Your task to perform on an android device: Go to Reddit.com Image 0: 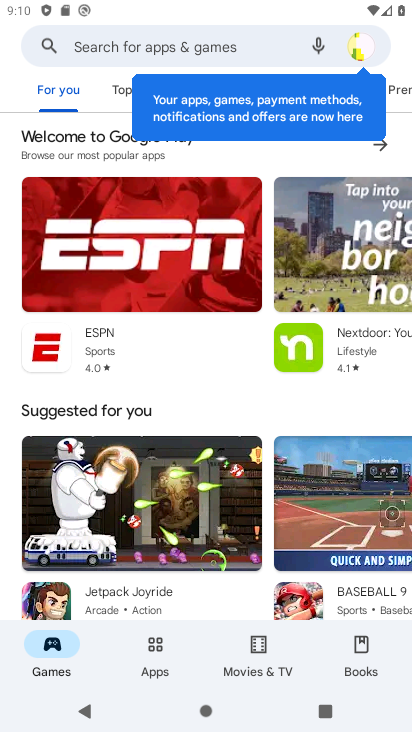
Step 0: press home button
Your task to perform on an android device: Go to Reddit.com Image 1: 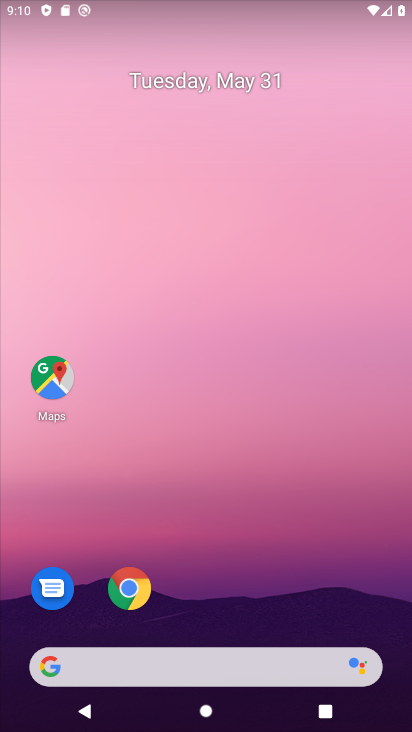
Step 1: click (118, 590)
Your task to perform on an android device: Go to Reddit.com Image 2: 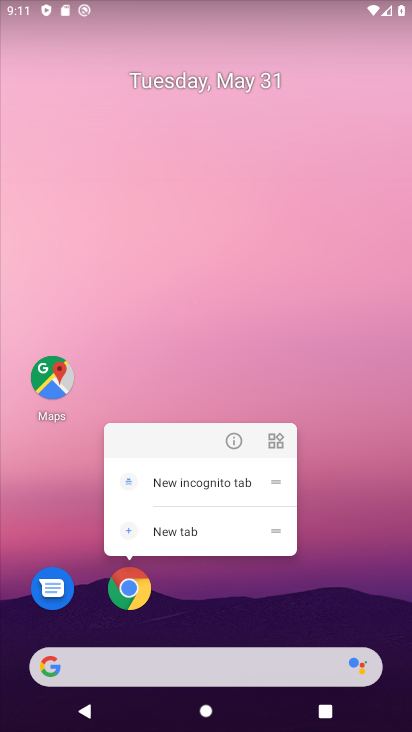
Step 2: click (113, 572)
Your task to perform on an android device: Go to Reddit.com Image 3: 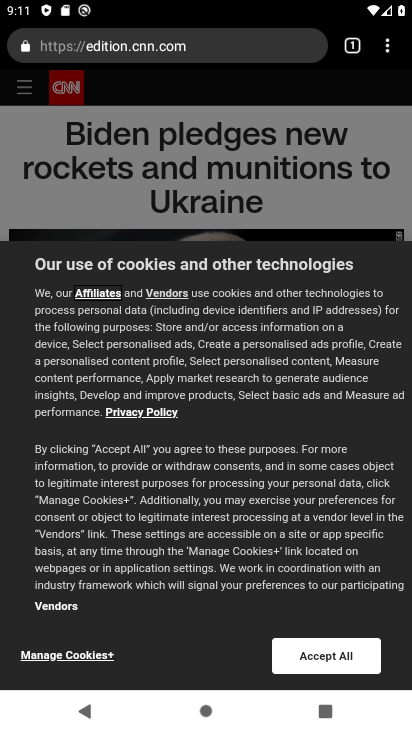
Step 3: click (184, 40)
Your task to perform on an android device: Go to Reddit.com Image 4: 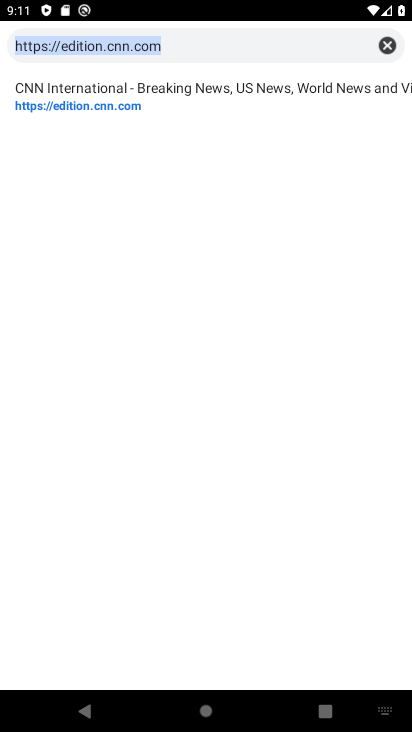
Step 4: type "Reddit.com"
Your task to perform on an android device: Go to Reddit.com Image 5: 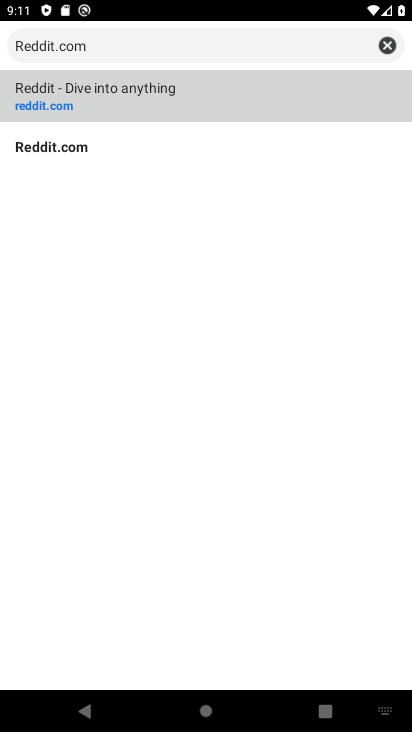
Step 5: click (24, 85)
Your task to perform on an android device: Go to Reddit.com Image 6: 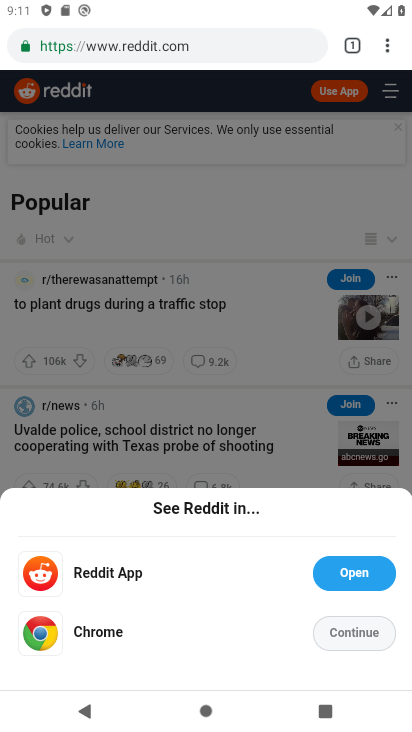
Step 6: task complete